Your task to perform on an android device: Open my contact list Image 0: 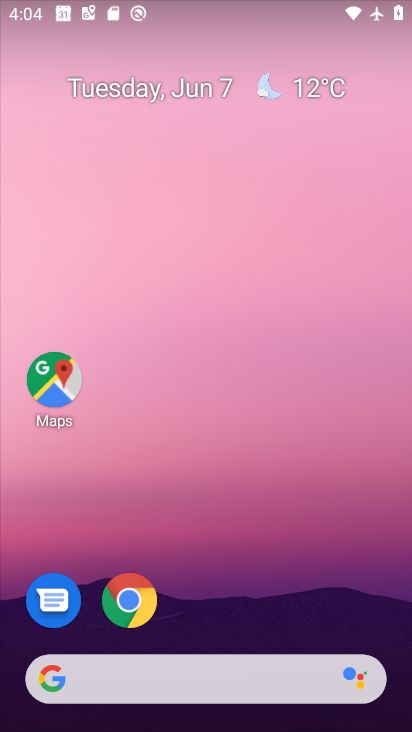
Step 0: drag from (253, 476) to (236, 138)
Your task to perform on an android device: Open my contact list Image 1: 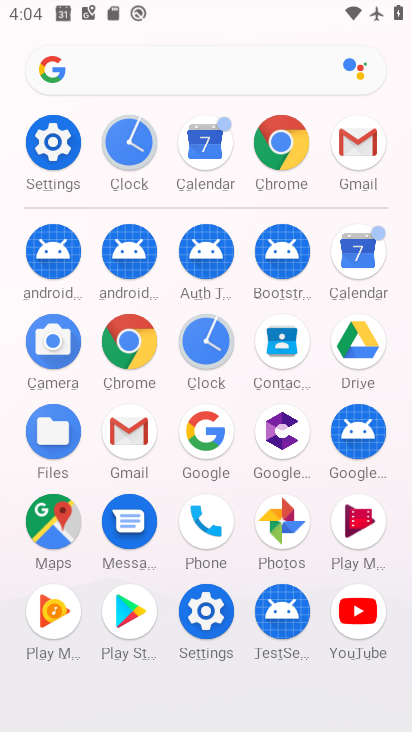
Step 1: click (294, 339)
Your task to perform on an android device: Open my contact list Image 2: 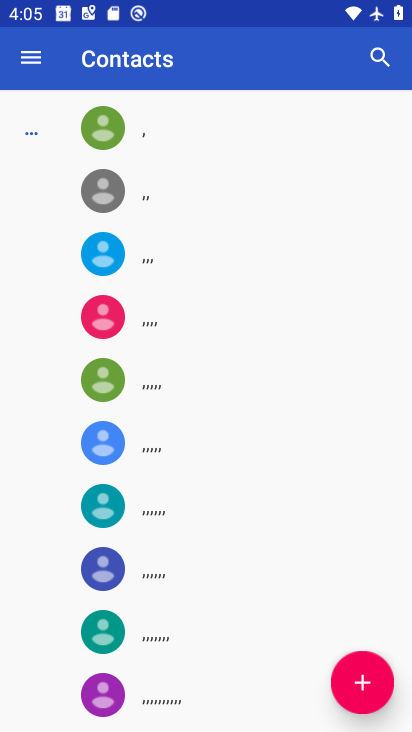
Step 2: task complete